Your task to perform on an android device: Open ESPN.com Image 0: 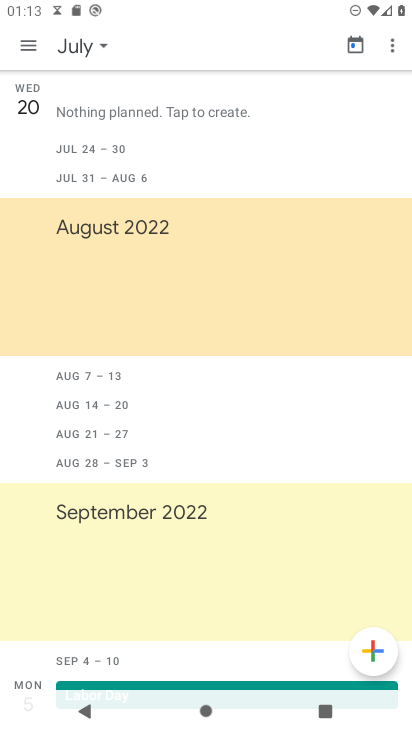
Step 0: press home button
Your task to perform on an android device: Open ESPN.com Image 1: 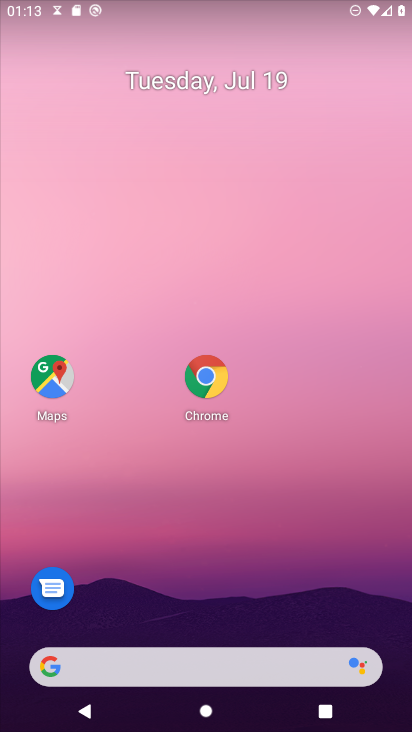
Step 1: click (48, 665)
Your task to perform on an android device: Open ESPN.com Image 2: 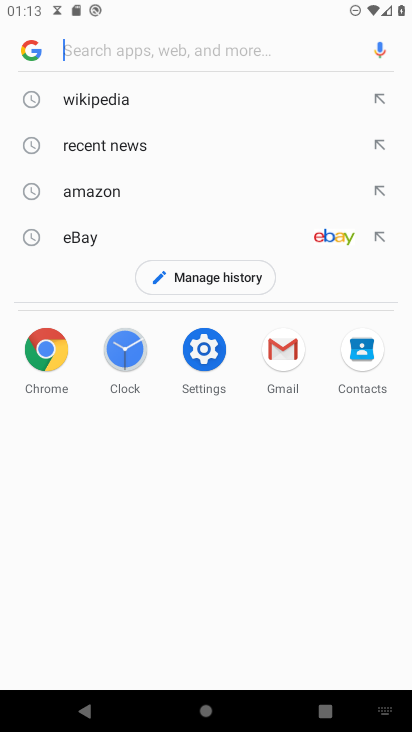
Step 2: type "ESPN.com"
Your task to perform on an android device: Open ESPN.com Image 3: 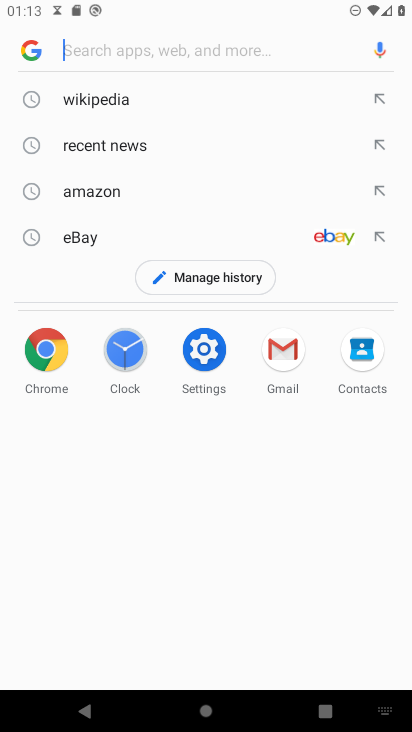
Step 3: click (128, 51)
Your task to perform on an android device: Open ESPN.com Image 4: 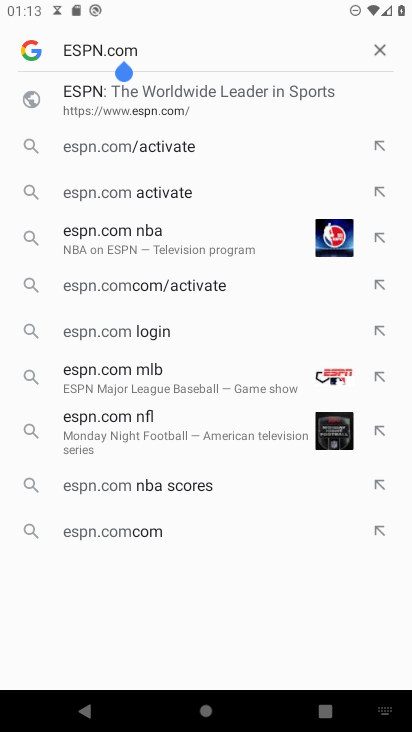
Step 4: click (163, 92)
Your task to perform on an android device: Open ESPN.com Image 5: 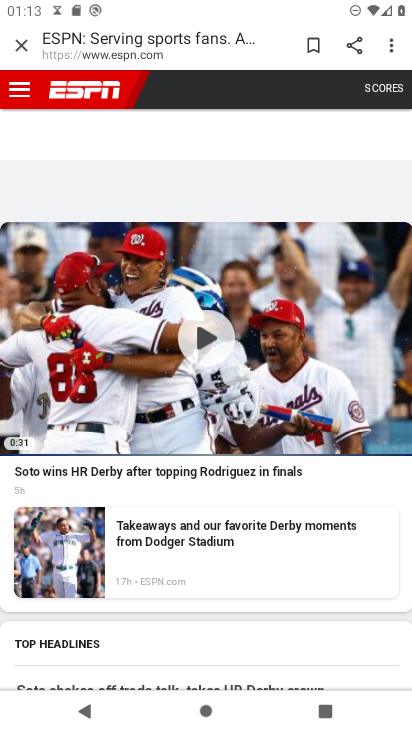
Step 5: task complete